Your task to perform on an android device: turn off sleep mode Image 0: 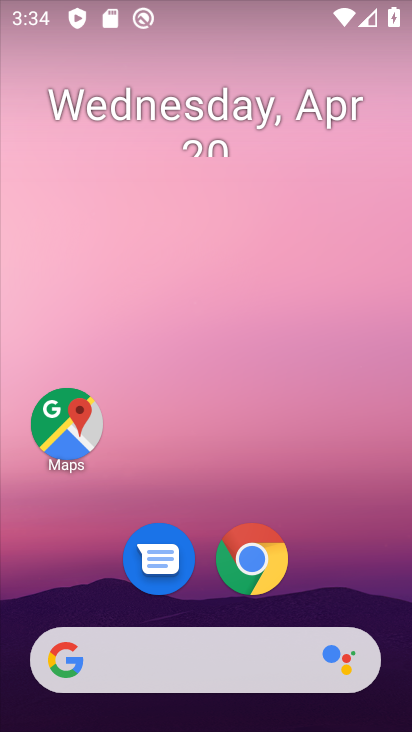
Step 0: drag from (215, 588) to (264, 236)
Your task to perform on an android device: turn off sleep mode Image 1: 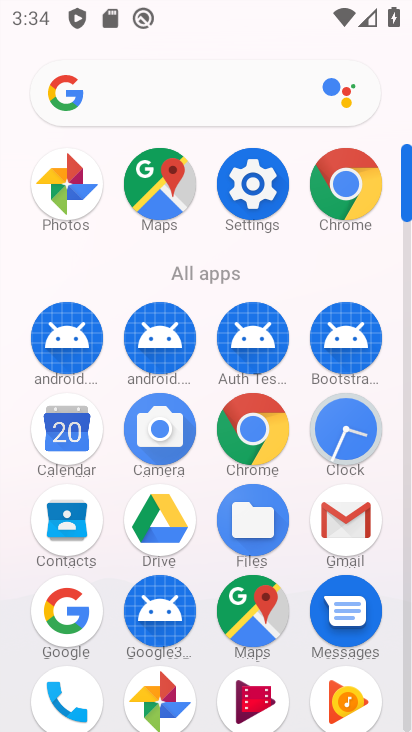
Step 1: click (258, 182)
Your task to perform on an android device: turn off sleep mode Image 2: 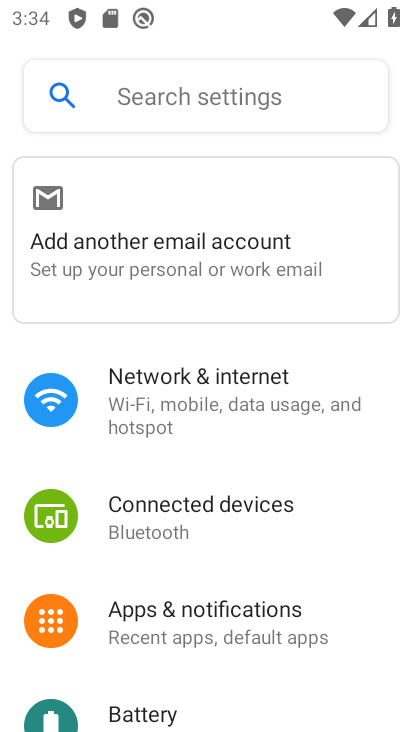
Step 2: drag from (204, 570) to (294, 297)
Your task to perform on an android device: turn off sleep mode Image 3: 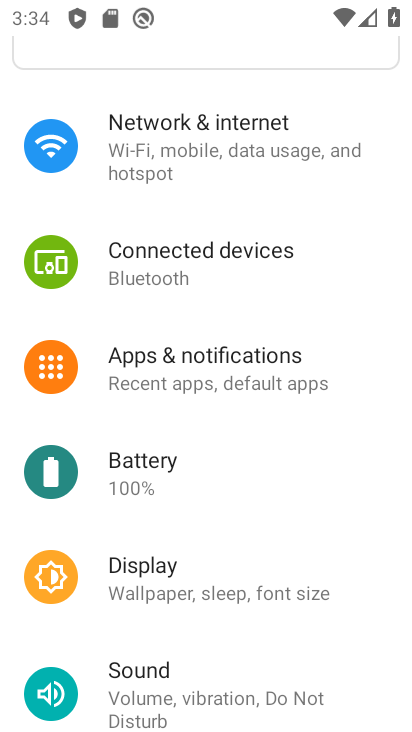
Step 3: click (223, 592)
Your task to perform on an android device: turn off sleep mode Image 4: 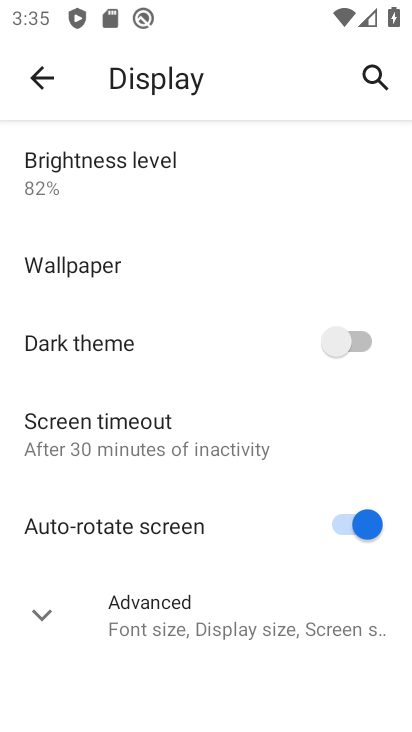
Step 4: task complete